Your task to perform on an android device: uninstall "Paramount+ | Peak Streaming" Image 0: 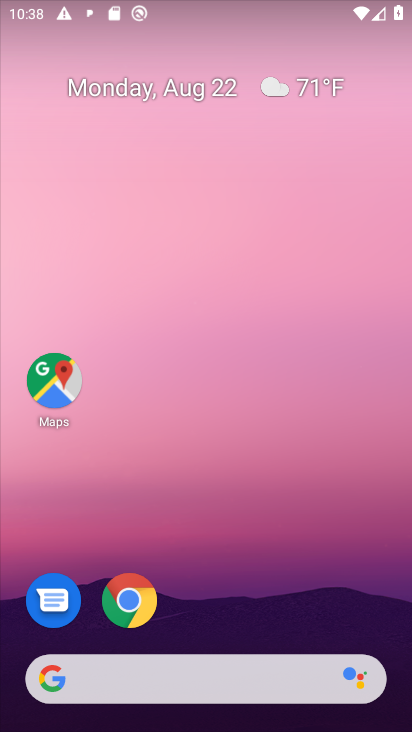
Step 0: drag from (202, 545) to (208, 189)
Your task to perform on an android device: uninstall "Paramount+ | Peak Streaming" Image 1: 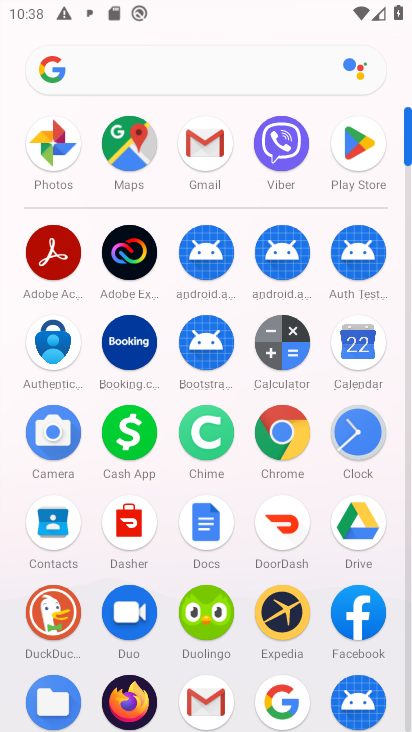
Step 1: click (357, 114)
Your task to perform on an android device: uninstall "Paramount+ | Peak Streaming" Image 2: 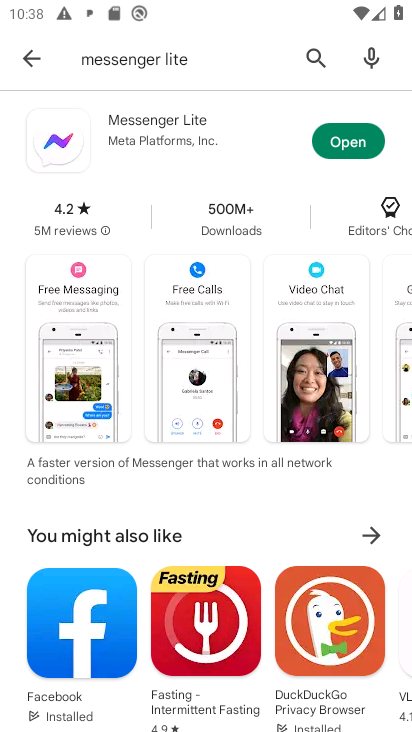
Step 2: click (311, 52)
Your task to perform on an android device: uninstall "Paramount+ | Peak Streaming" Image 3: 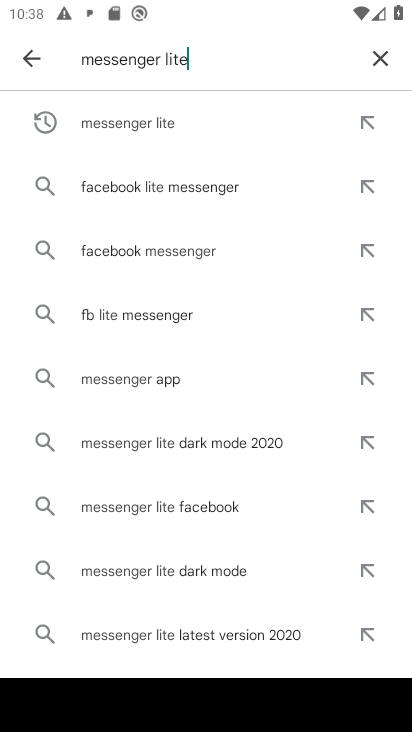
Step 3: type "Paramount+ | Peak Streaming"
Your task to perform on an android device: uninstall "Paramount+ | Peak Streaming" Image 4: 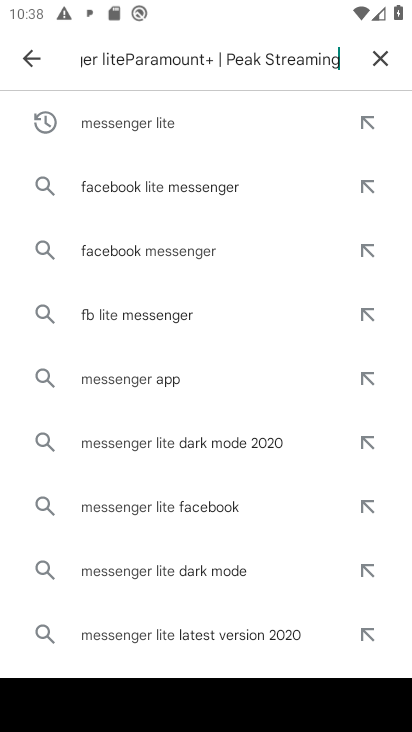
Step 4: type ""
Your task to perform on an android device: uninstall "Paramount+ | Peak Streaming" Image 5: 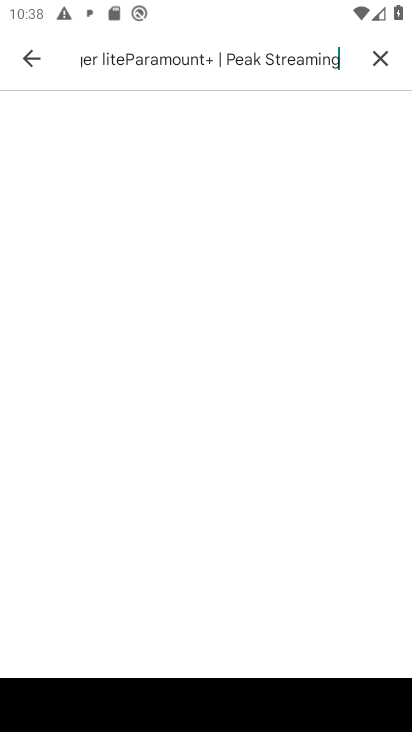
Step 5: click (381, 50)
Your task to perform on an android device: uninstall "Paramount+ | Peak Streaming" Image 6: 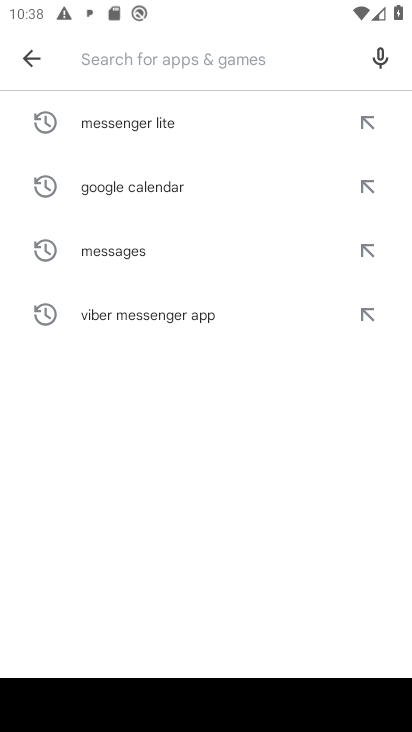
Step 6: type "Paramount+ | Peak Streaming"
Your task to perform on an android device: uninstall "Paramount+ | Peak Streaming" Image 7: 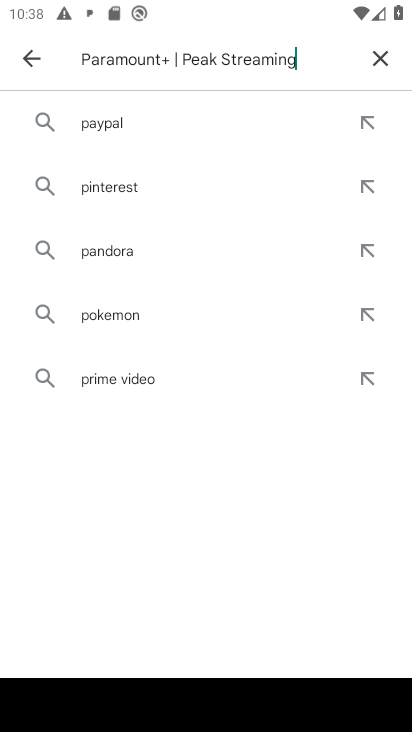
Step 7: type ""
Your task to perform on an android device: uninstall "Paramount+ | Peak Streaming" Image 8: 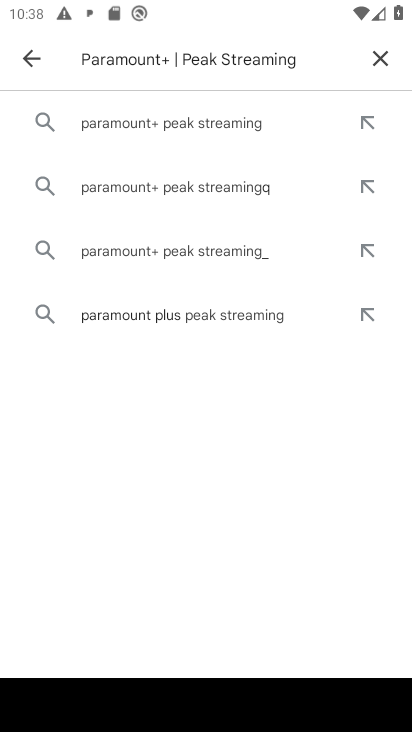
Step 8: click (170, 122)
Your task to perform on an android device: uninstall "Paramount+ | Peak Streaming" Image 9: 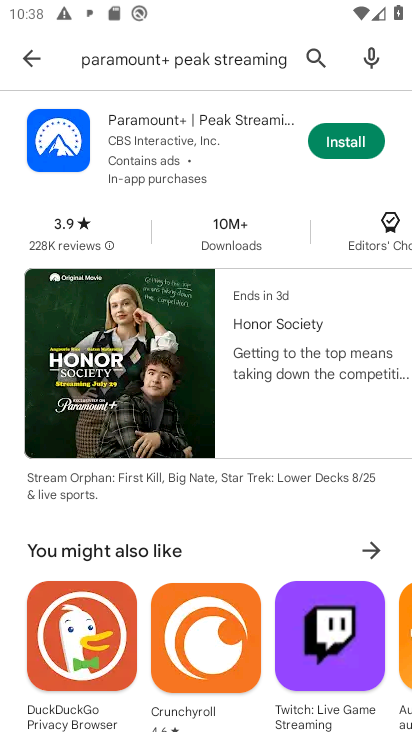
Step 9: click (201, 117)
Your task to perform on an android device: uninstall "Paramount+ | Peak Streaming" Image 10: 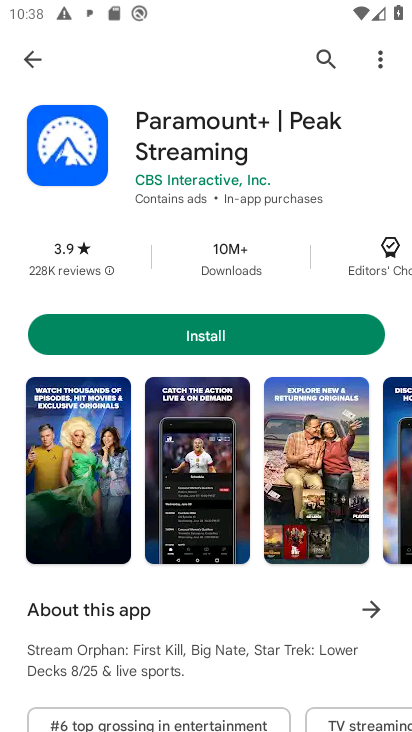
Step 10: task complete